Your task to perform on an android device: Open Yahoo.com Image 0: 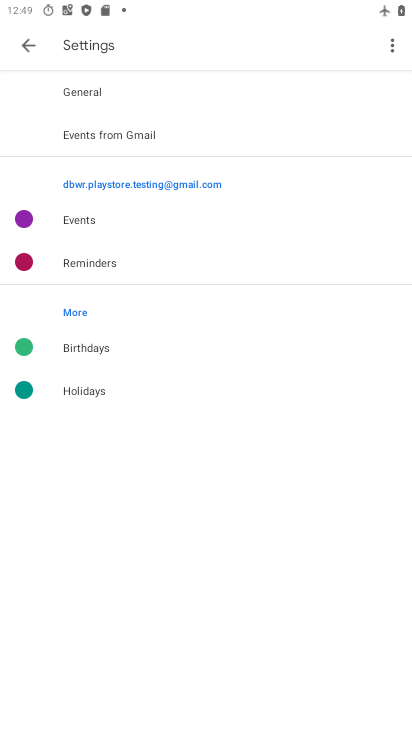
Step 0: press home button
Your task to perform on an android device: Open Yahoo.com Image 1: 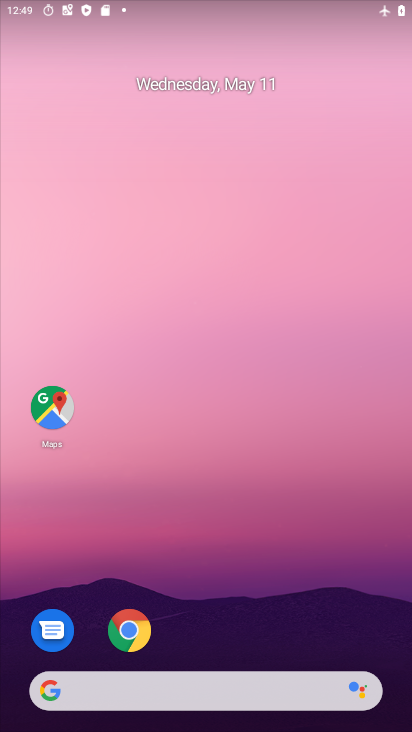
Step 1: click (126, 624)
Your task to perform on an android device: Open Yahoo.com Image 2: 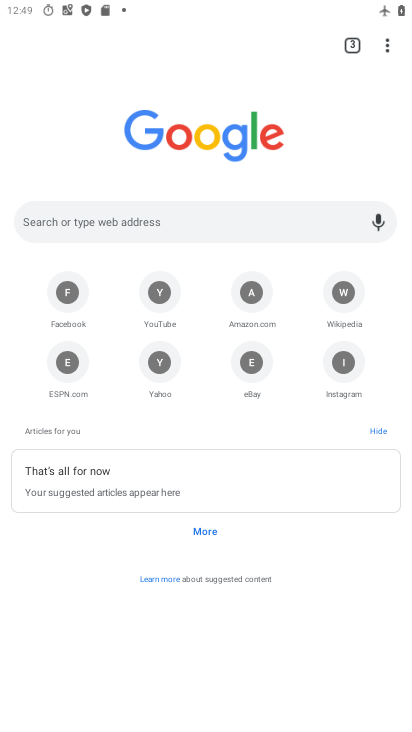
Step 2: click (215, 218)
Your task to perform on an android device: Open Yahoo.com Image 3: 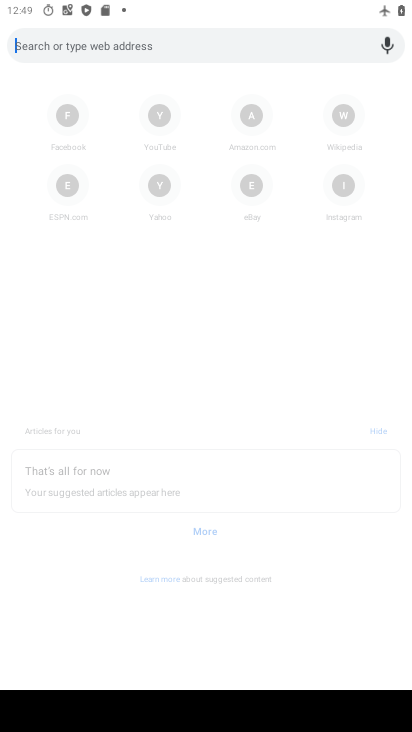
Step 3: type "yahoo.com"
Your task to perform on an android device: Open Yahoo.com Image 4: 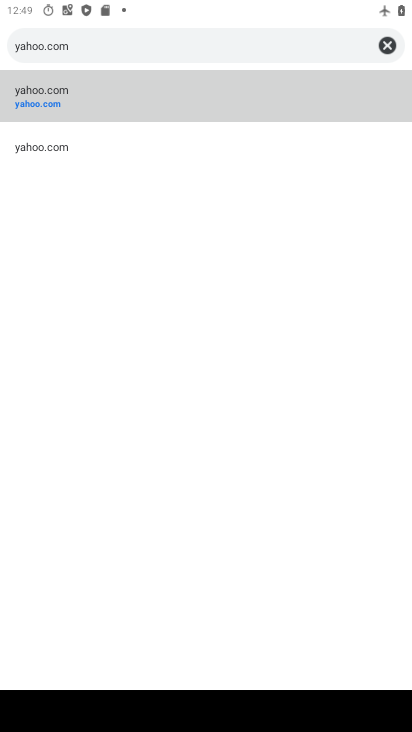
Step 4: click (47, 100)
Your task to perform on an android device: Open Yahoo.com Image 5: 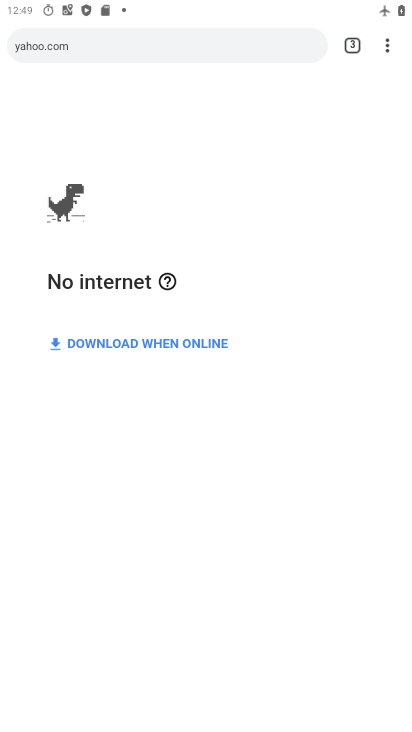
Step 5: task complete